Your task to perform on an android device: turn on improve location accuracy Image 0: 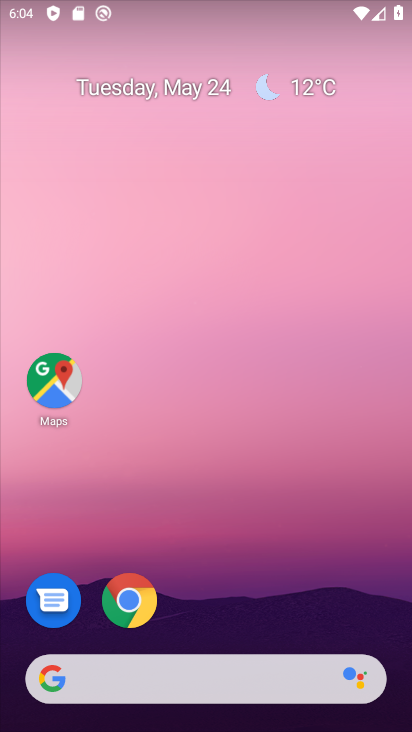
Step 0: drag from (375, 585) to (394, 47)
Your task to perform on an android device: turn on improve location accuracy Image 1: 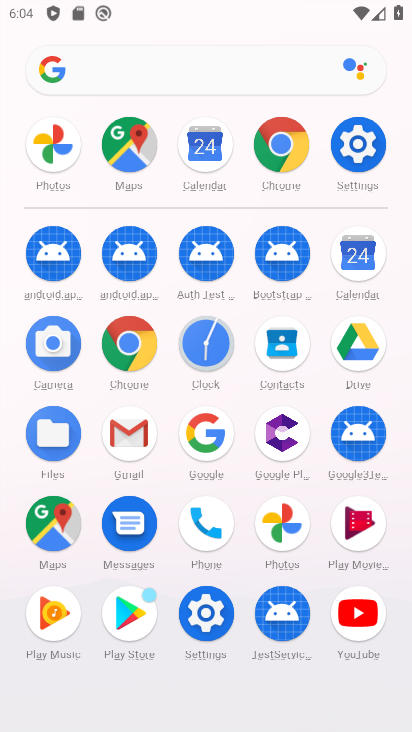
Step 1: click (361, 141)
Your task to perform on an android device: turn on improve location accuracy Image 2: 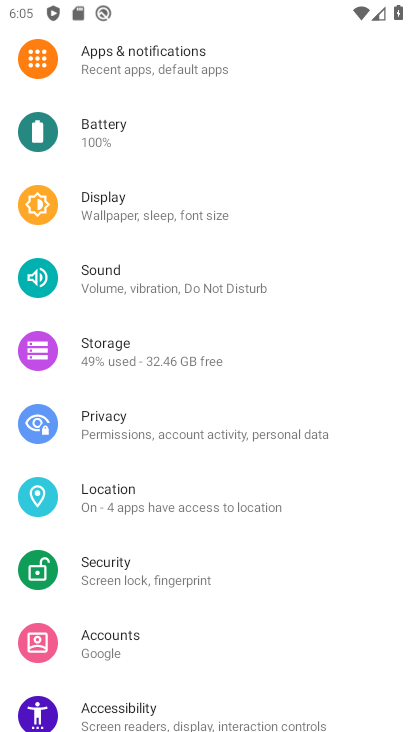
Step 2: drag from (206, 470) to (363, 721)
Your task to perform on an android device: turn on improve location accuracy Image 3: 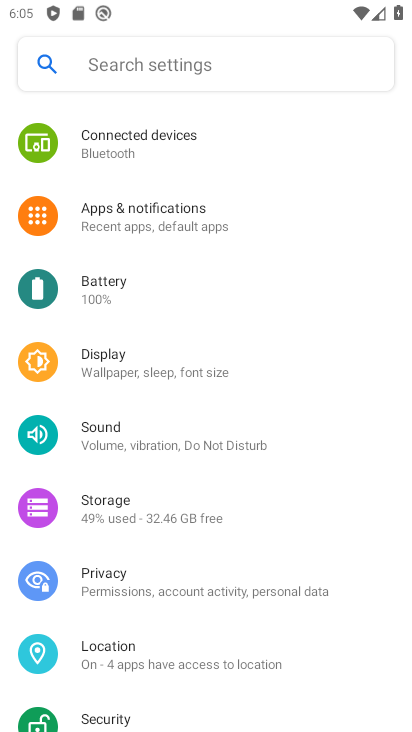
Step 3: click (139, 655)
Your task to perform on an android device: turn on improve location accuracy Image 4: 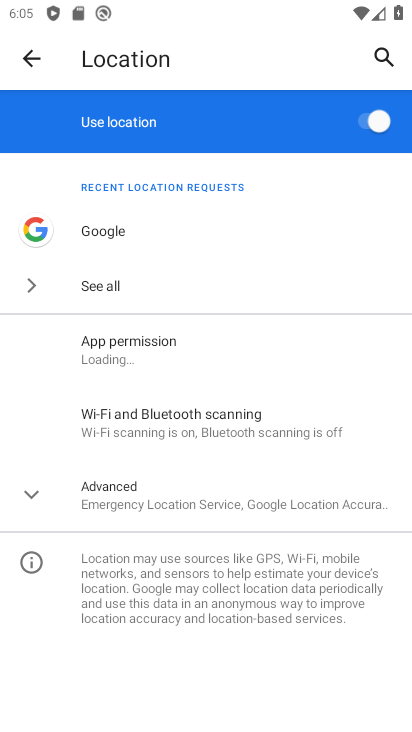
Step 4: click (223, 499)
Your task to perform on an android device: turn on improve location accuracy Image 5: 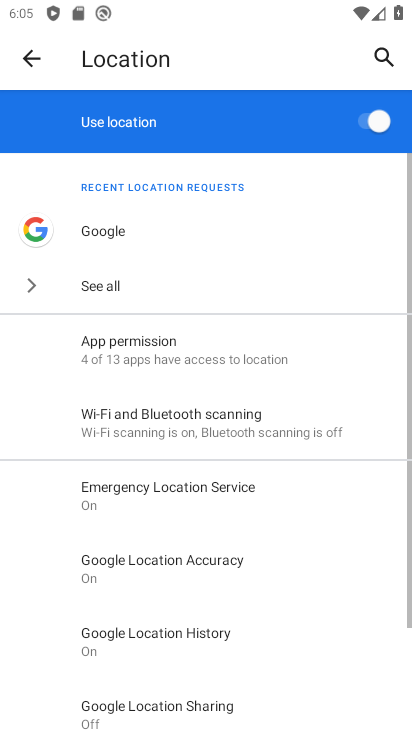
Step 5: click (215, 577)
Your task to perform on an android device: turn on improve location accuracy Image 6: 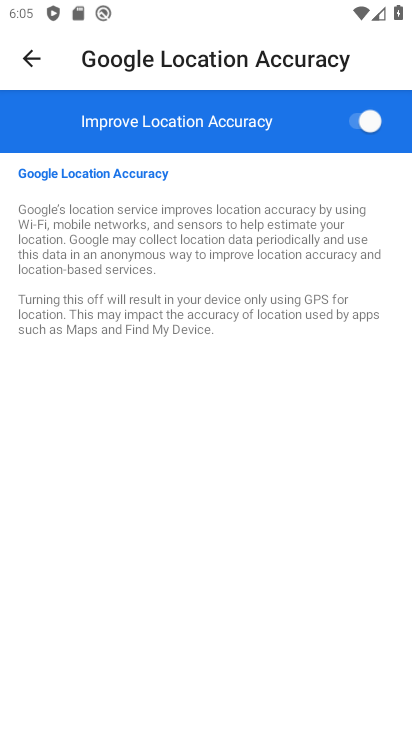
Step 6: task complete